Your task to perform on an android device: choose inbox layout in the gmail app Image 0: 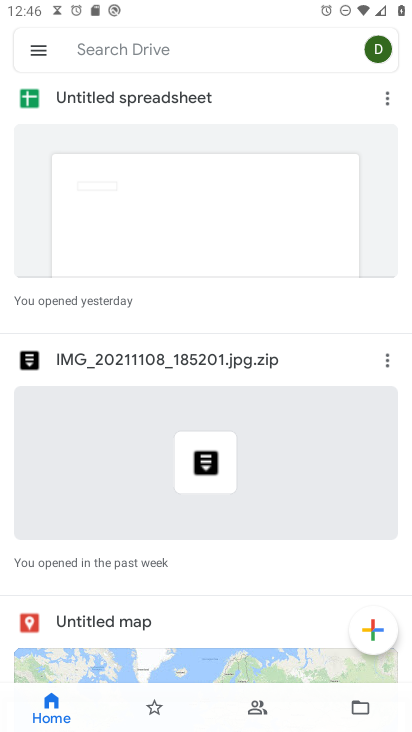
Step 0: press home button
Your task to perform on an android device: choose inbox layout in the gmail app Image 1: 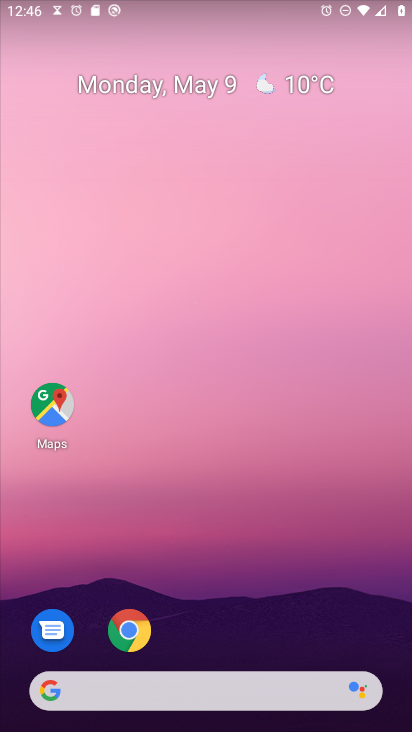
Step 1: drag from (175, 651) to (337, 144)
Your task to perform on an android device: choose inbox layout in the gmail app Image 2: 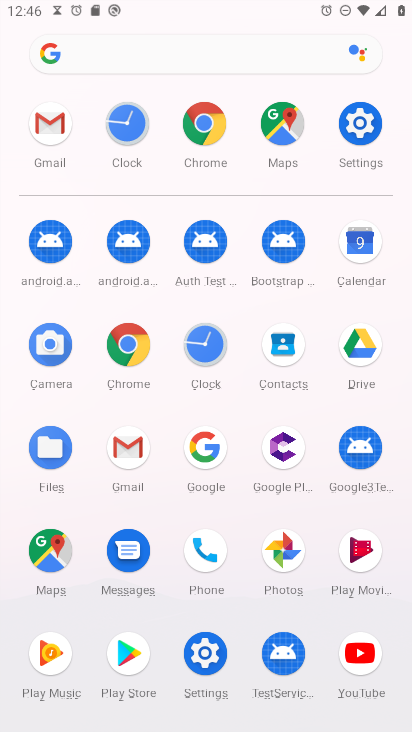
Step 2: click (55, 129)
Your task to perform on an android device: choose inbox layout in the gmail app Image 3: 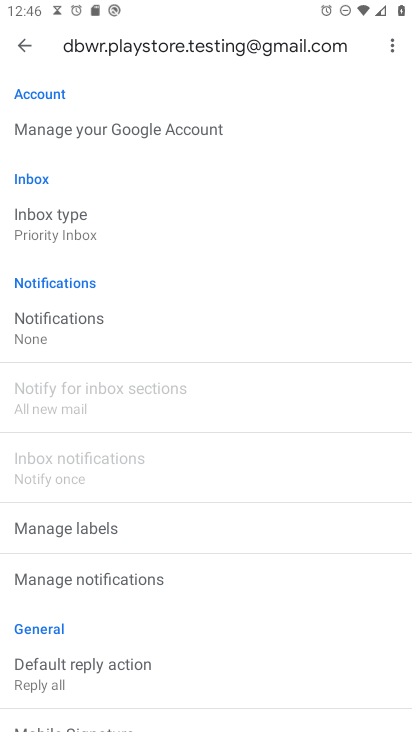
Step 3: click (59, 213)
Your task to perform on an android device: choose inbox layout in the gmail app Image 4: 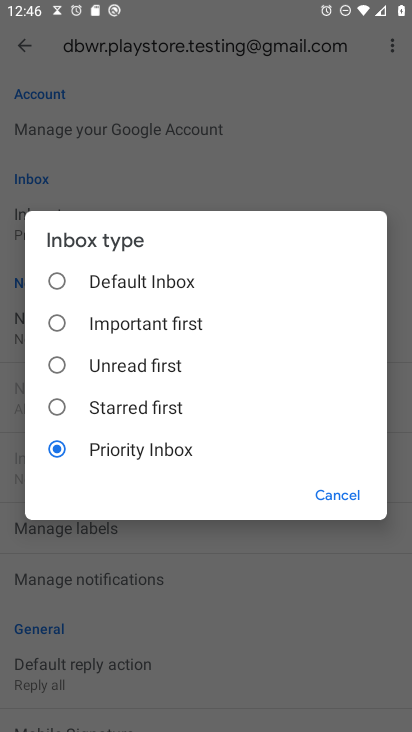
Step 4: click (55, 327)
Your task to perform on an android device: choose inbox layout in the gmail app Image 5: 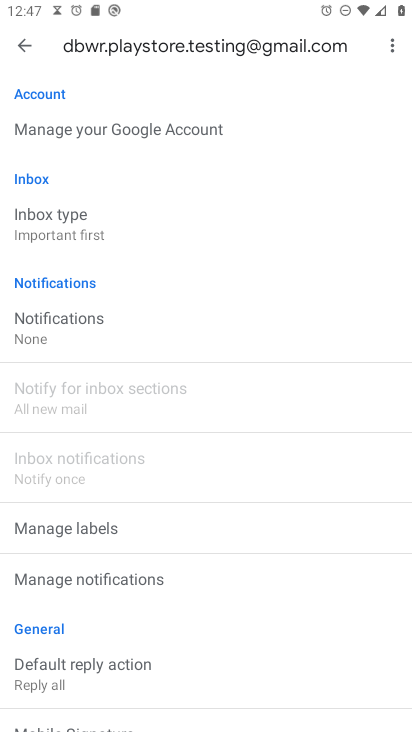
Step 5: task complete